Your task to perform on an android device: When is my next appointment? Image 0: 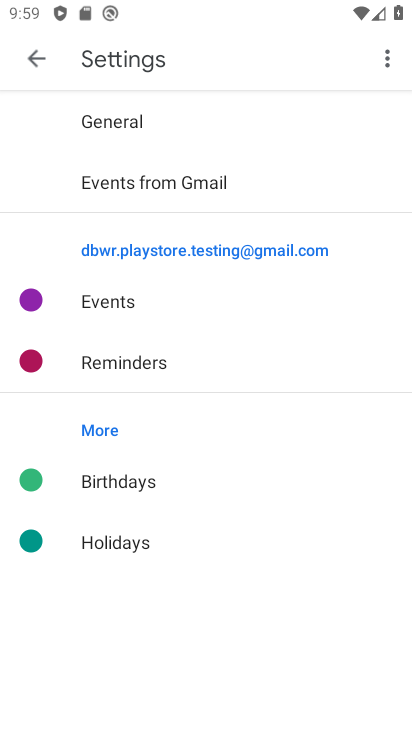
Step 0: press home button
Your task to perform on an android device: When is my next appointment? Image 1: 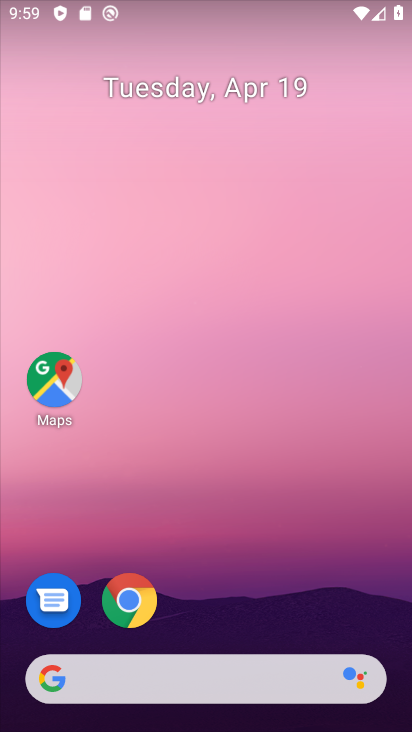
Step 1: drag from (224, 617) to (339, 3)
Your task to perform on an android device: When is my next appointment? Image 2: 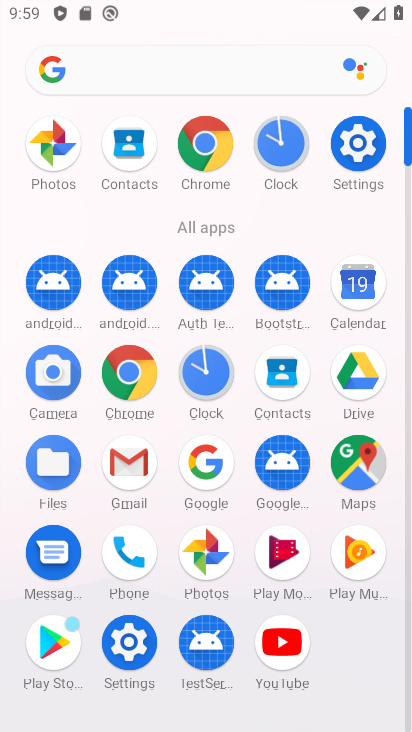
Step 2: click (361, 289)
Your task to perform on an android device: When is my next appointment? Image 3: 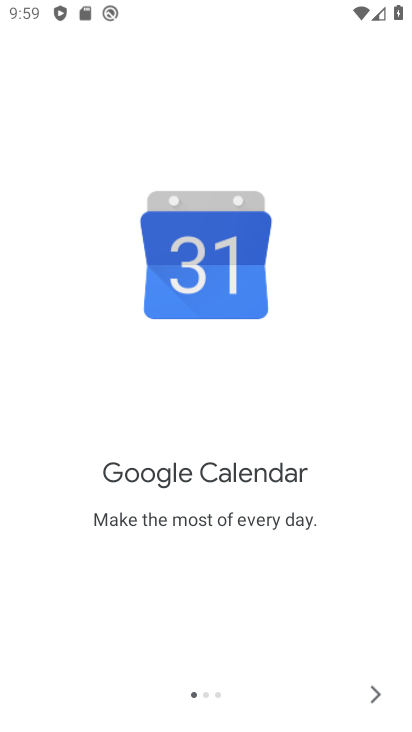
Step 3: click (370, 683)
Your task to perform on an android device: When is my next appointment? Image 4: 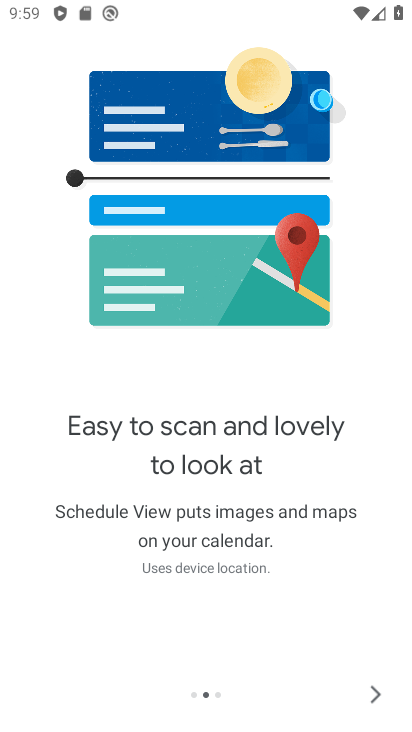
Step 4: click (363, 677)
Your task to perform on an android device: When is my next appointment? Image 5: 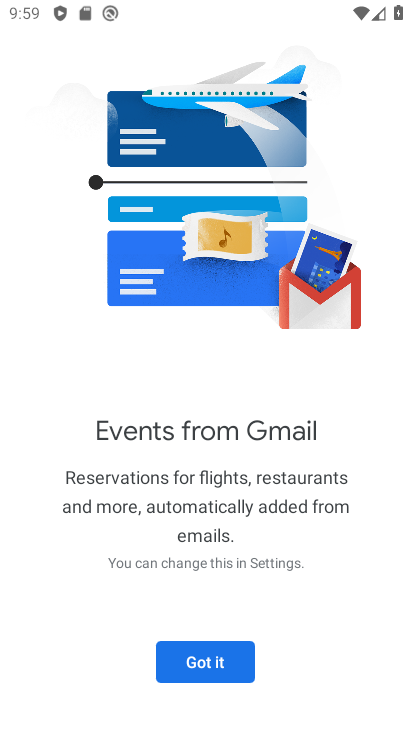
Step 5: click (203, 665)
Your task to perform on an android device: When is my next appointment? Image 6: 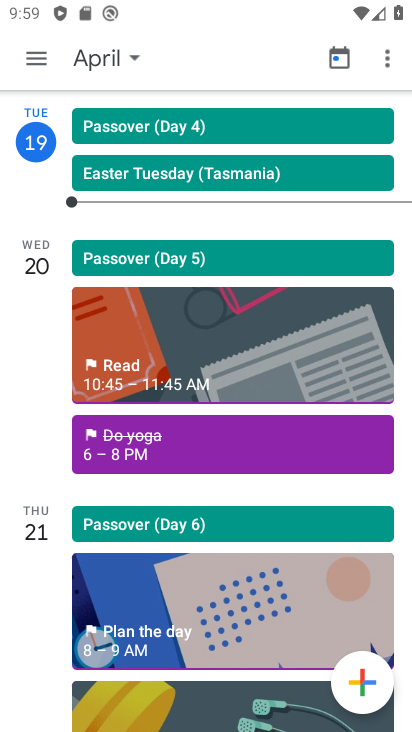
Step 6: click (96, 57)
Your task to perform on an android device: When is my next appointment? Image 7: 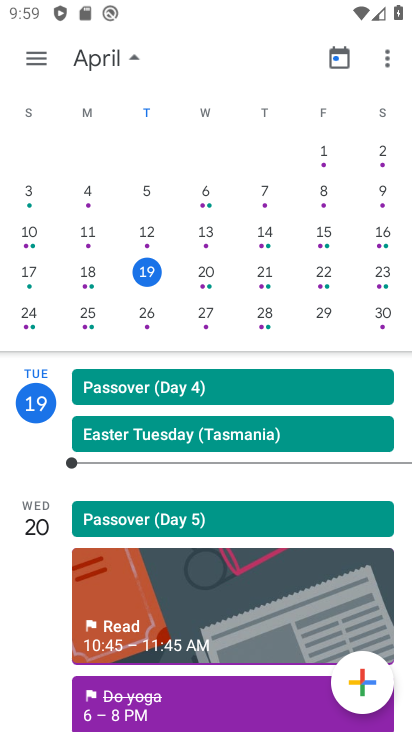
Step 7: click (45, 53)
Your task to perform on an android device: When is my next appointment? Image 8: 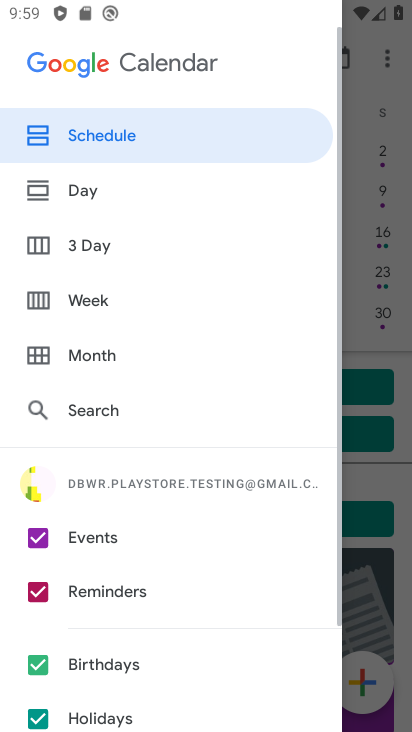
Step 8: click (100, 404)
Your task to perform on an android device: When is my next appointment? Image 9: 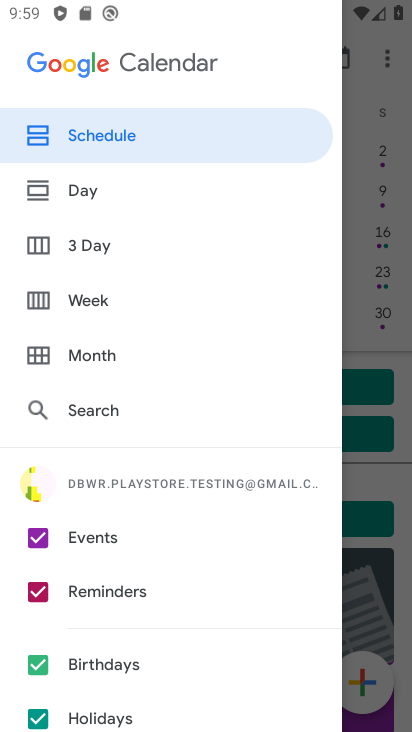
Step 9: click (106, 413)
Your task to perform on an android device: When is my next appointment? Image 10: 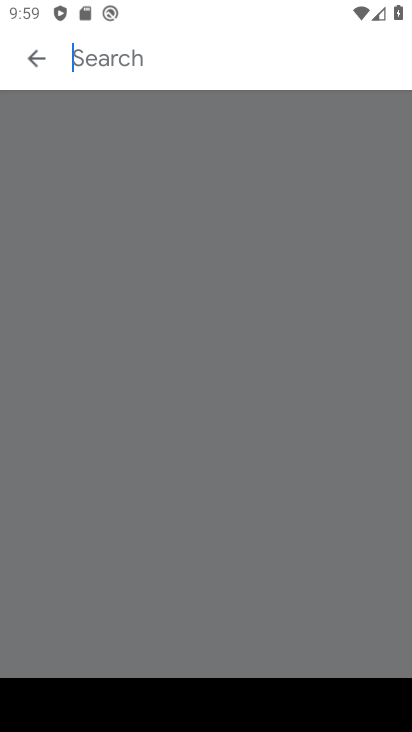
Step 10: type "appointment"
Your task to perform on an android device: When is my next appointment? Image 11: 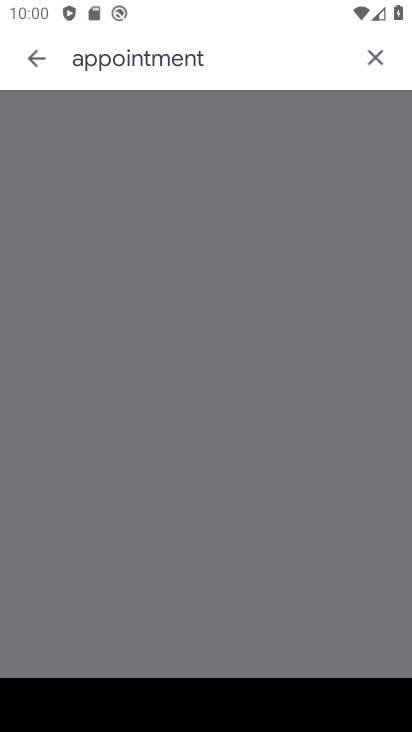
Step 11: task complete